Your task to perform on an android device: Open Youtube and go to the subscriptions tab Image 0: 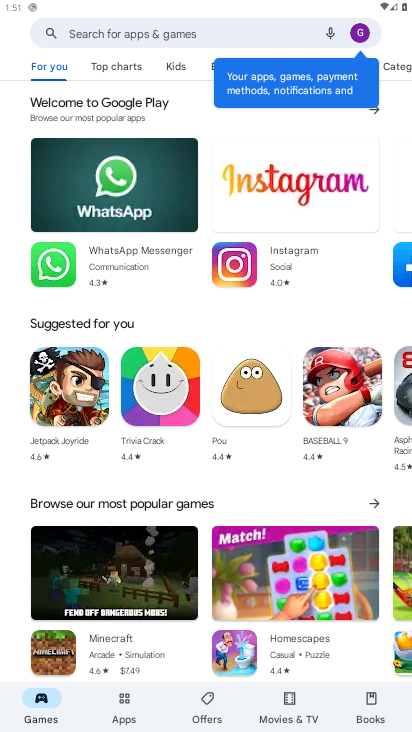
Step 0: press home button
Your task to perform on an android device: Open Youtube and go to the subscriptions tab Image 1: 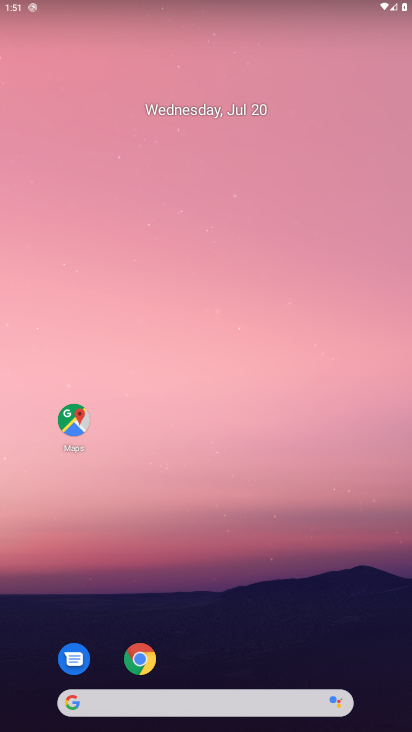
Step 1: drag from (38, 689) to (177, 167)
Your task to perform on an android device: Open Youtube and go to the subscriptions tab Image 2: 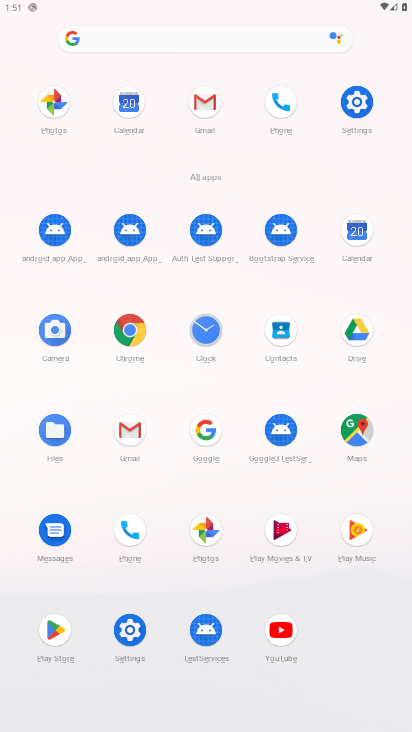
Step 2: click (297, 628)
Your task to perform on an android device: Open Youtube and go to the subscriptions tab Image 3: 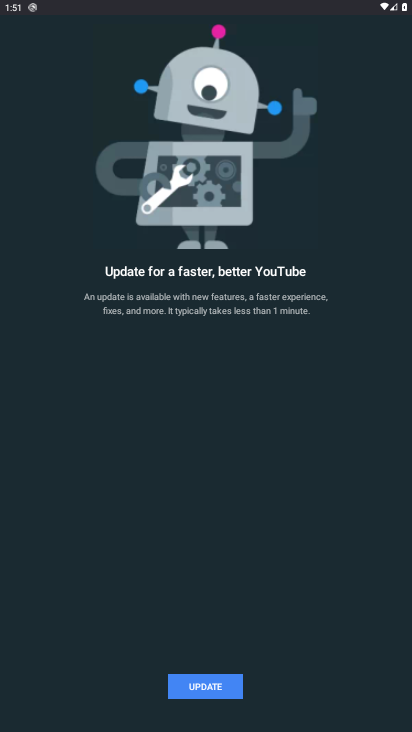
Step 3: click (200, 683)
Your task to perform on an android device: Open Youtube and go to the subscriptions tab Image 4: 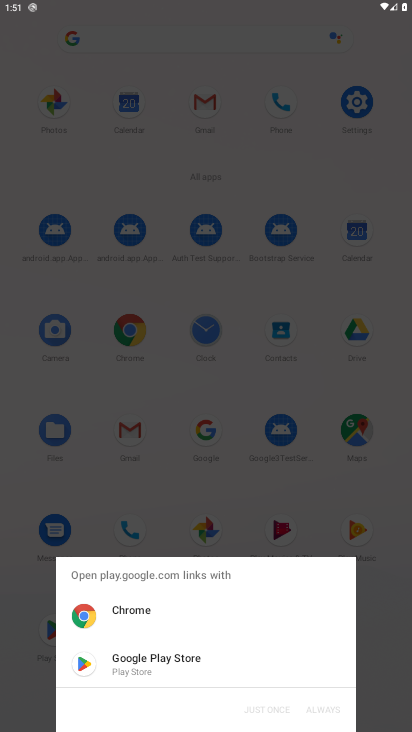
Step 4: click (139, 654)
Your task to perform on an android device: Open Youtube and go to the subscriptions tab Image 5: 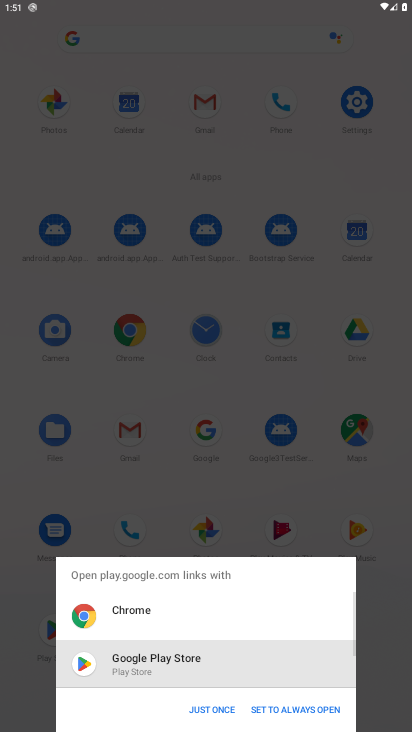
Step 5: click (211, 705)
Your task to perform on an android device: Open Youtube and go to the subscriptions tab Image 6: 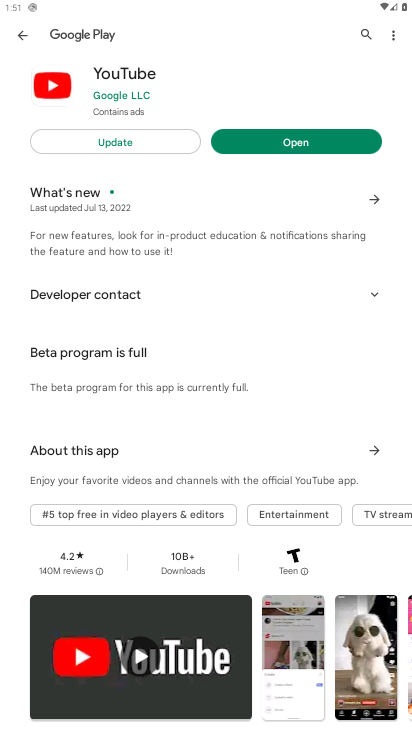
Step 6: click (291, 142)
Your task to perform on an android device: Open Youtube and go to the subscriptions tab Image 7: 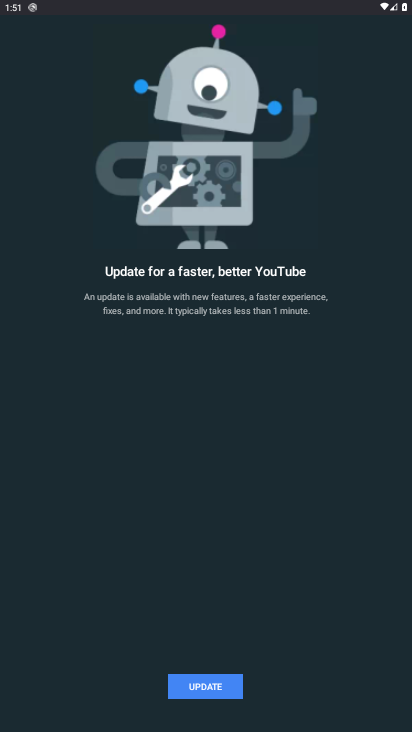
Step 7: task complete